Your task to perform on an android device: Search for logitech g pro on newegg.com, select the first entry, add it to the cart, then select checkout. Image 0: 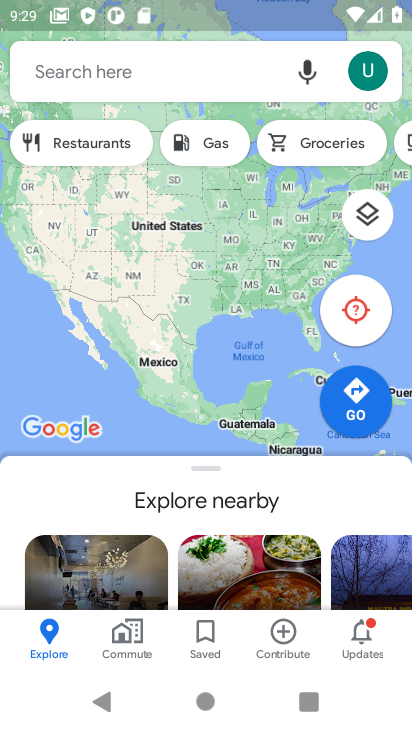
Step 0: press home button
Your task to perform on an android device: Search for logitech g pro on newegg.com, select the first entry, add it to the cart, then select checkout. Image 1: 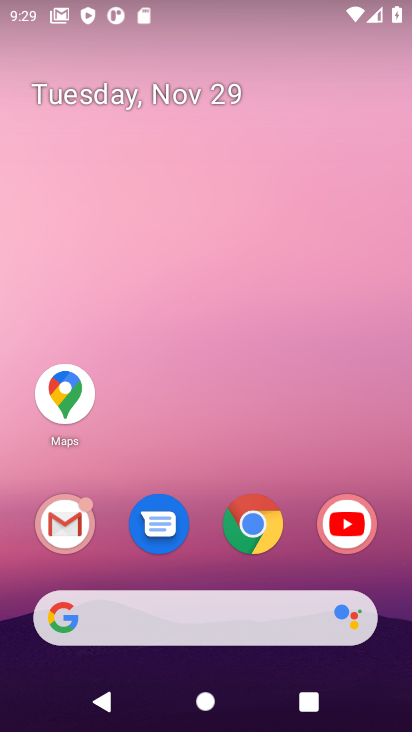
Step 1: click (251, 527)
Your task to perform on an android device: Search for logitech g pro on newegg.com, select the first entry, add it to the cart, then select checkout. Image 2: 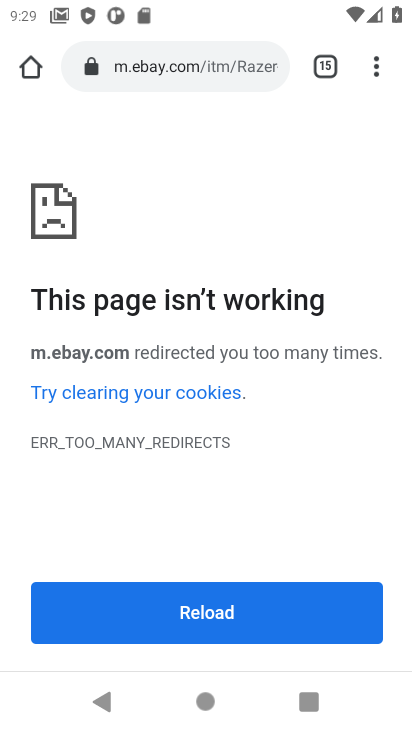
Step 2: click (150, 69)
Your task to perform on an android device: Search for logitech g pro on newegg.com, select the first entry, add it to the cart, then select checkout. Image 3: 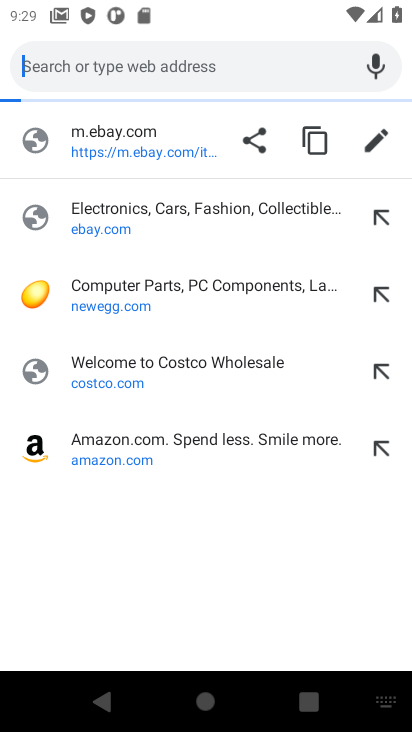
Step 3: click (102, 312)
Your task to perform on an android device: Search for logitech g pro on newegg.com, select the first entry, add it to the cart, then select checkout. Image 4: 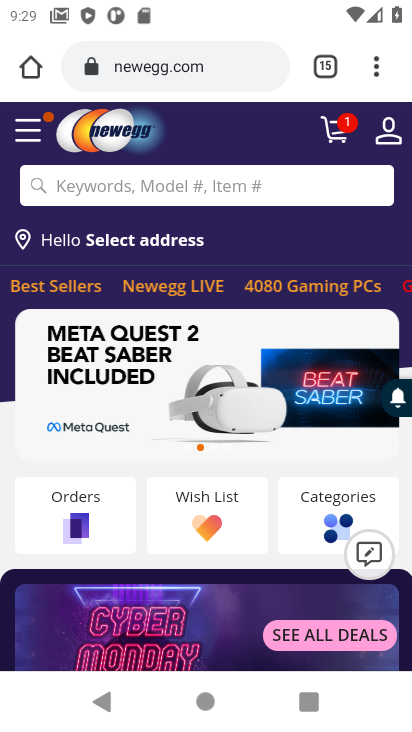
Step 4: click (100, 187)
Your task to perform on an android device: Search for logitech g pro on newegg.com, select the first entry, add it to the cart, then select checkout. Image 5: 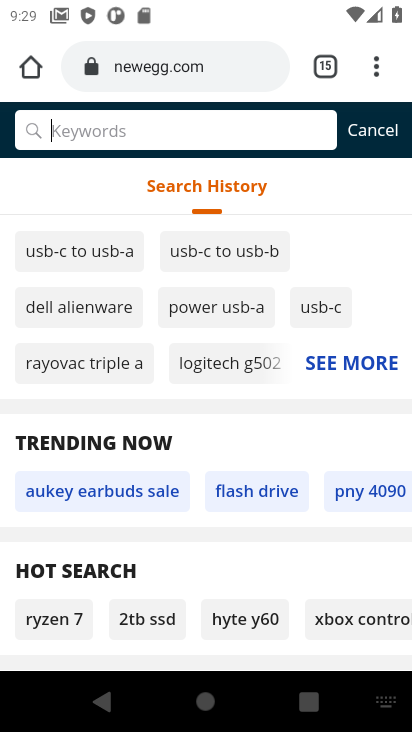
Step 5: type " logitech g pro"
Your task to perform on an android device: Search for logitech g pro on newegg.com, select the first entry, add it to the cart, then select checkout. Image 6: 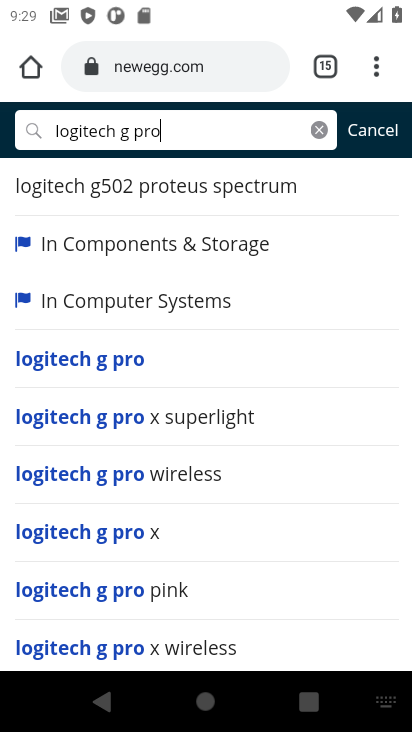
Step 6: click (89, 363)
Your task to perform on an android device: Search for logitech g pro on newegg.com, select the first entry, add it to the cart, then select checkout. Image 7: 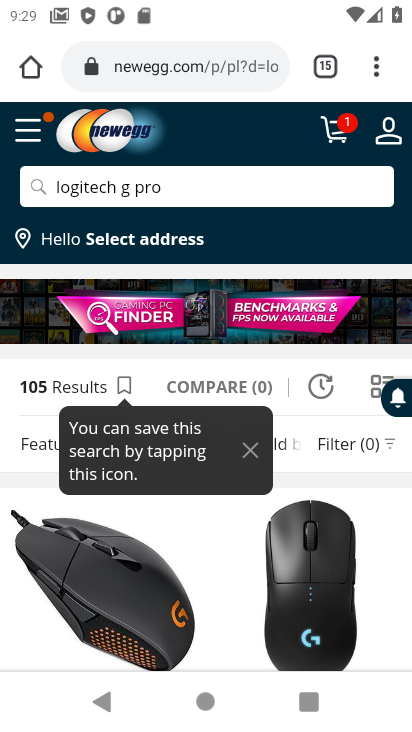
Step 7: task complete